Your task to perform on an android device: Open accessibility settings Image 0: 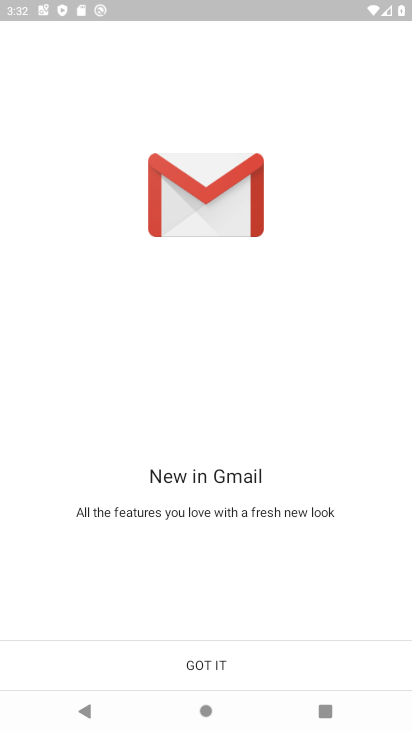
Step 0: click (200, 660)
Your task to perform on an android device: Open accessibility settings Image 1: 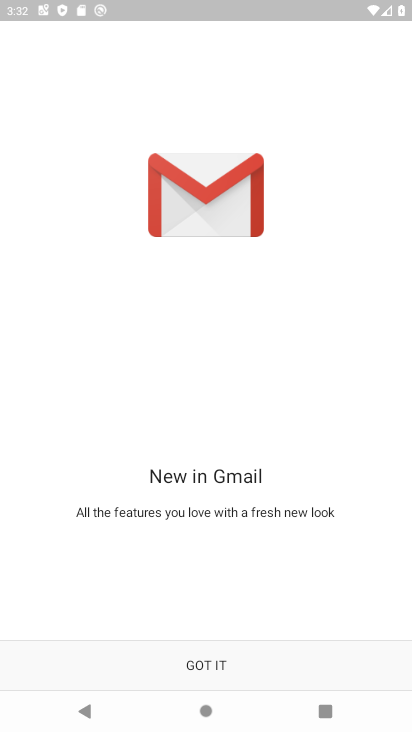
Step 1: click (203, 659)
Your task to perform on an android device: Open accessibility settings Image 2: 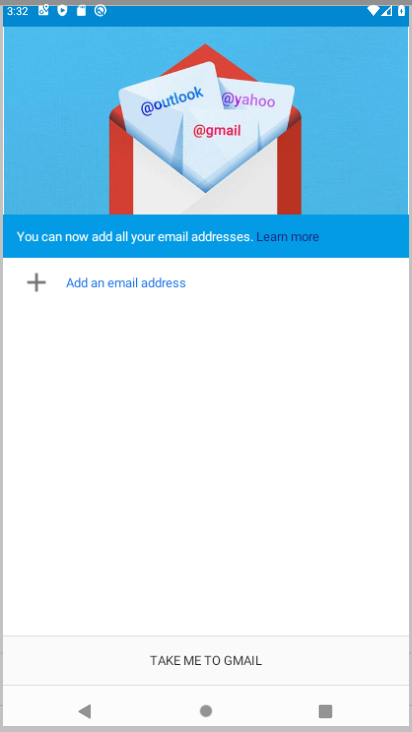
Step 2: click (205, 658)
Your task to perform on an android device: Open accessibility settings Image 3: 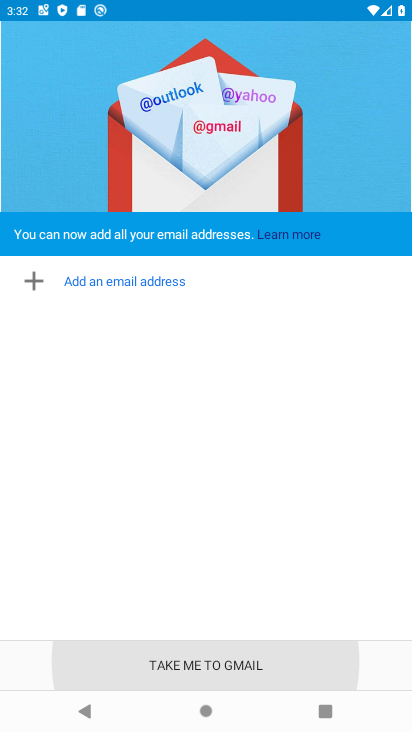
Step 3: click (208, 655)
Your task to perform on an android device: Open accessibility settings Image 4: 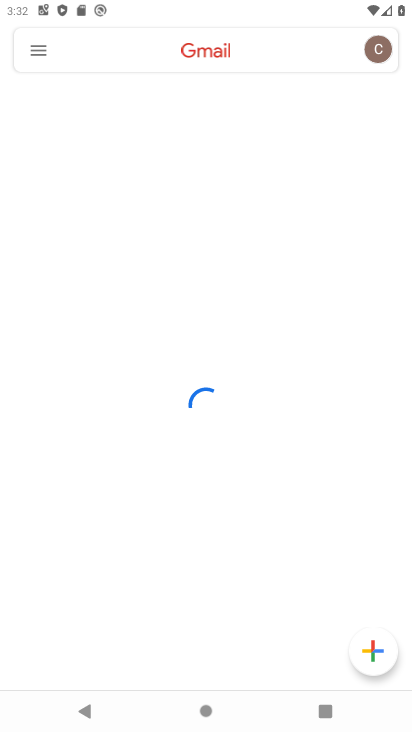
Step 4: press back button
Your task to perform on an android device: Open accessibility settings Image 5: 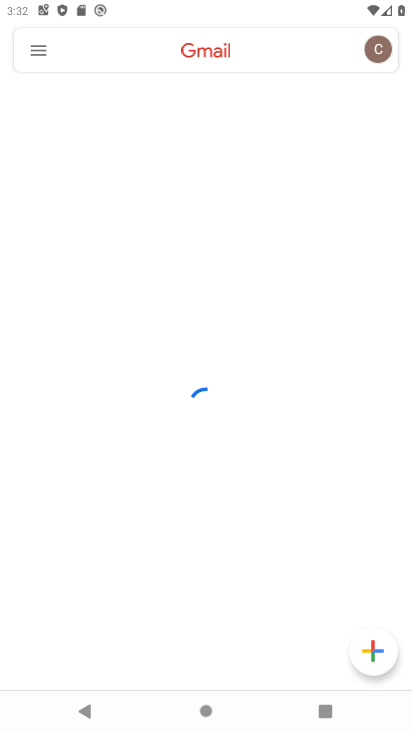
Step 5: press back button
Your task to perform on an android device: Open accessibility settings Image 6: 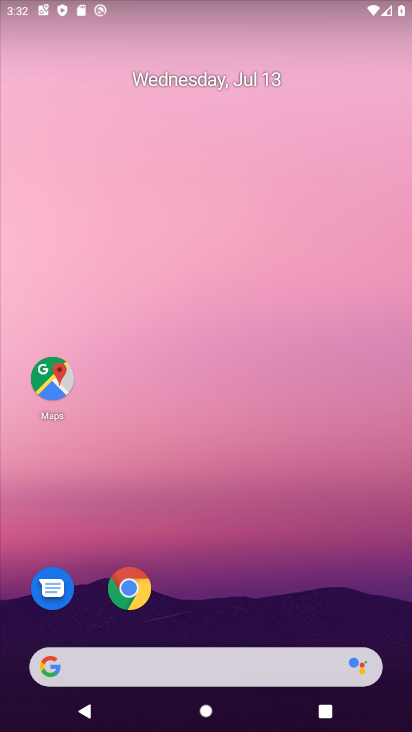
Step 6: drag from (259, 642) to (203, 231)
Your task to perform on an android device: Open accessibility settings Image 7: 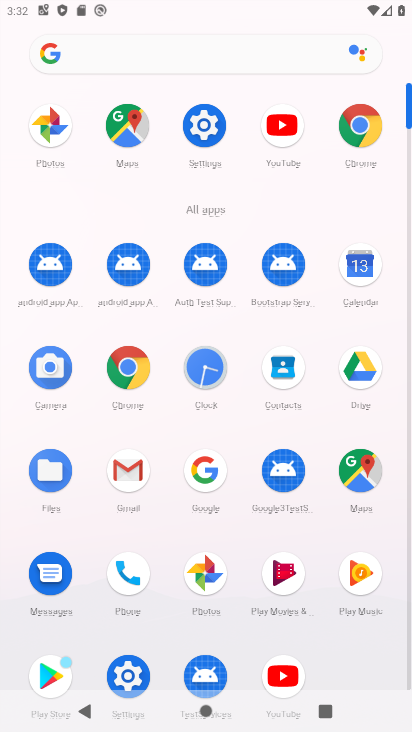
Step 7: click (206, 128)
Your task to perform on an android device: Open accessibility settings Image 8: 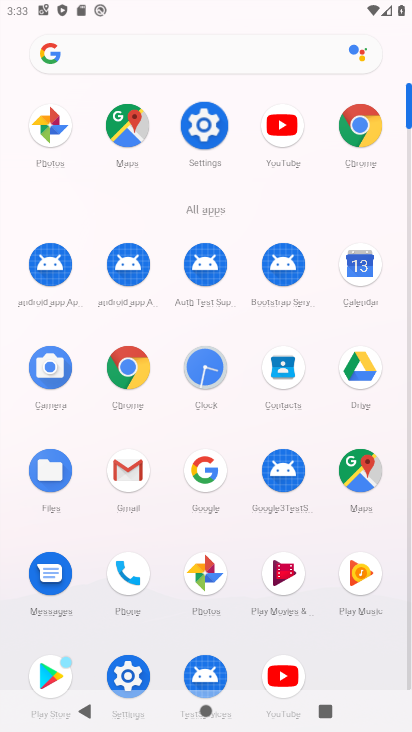
Step 8: click (207, 125)
Your task to perform on an android device: Open accessibility settings Image 9: 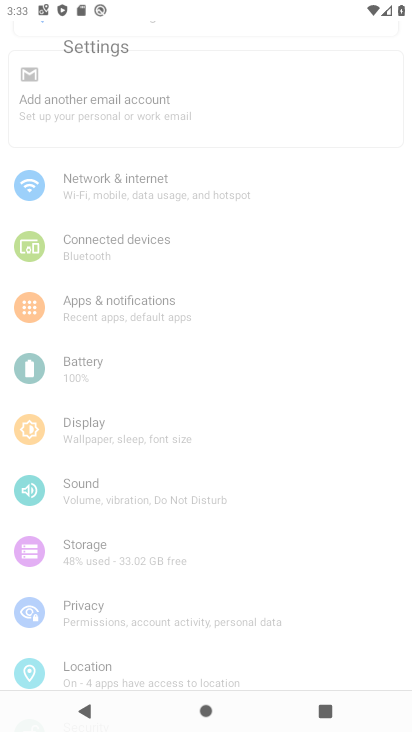
Step 9: click (210, 122)
Your task to perform on an android device: Open accessibility settings Image 10: 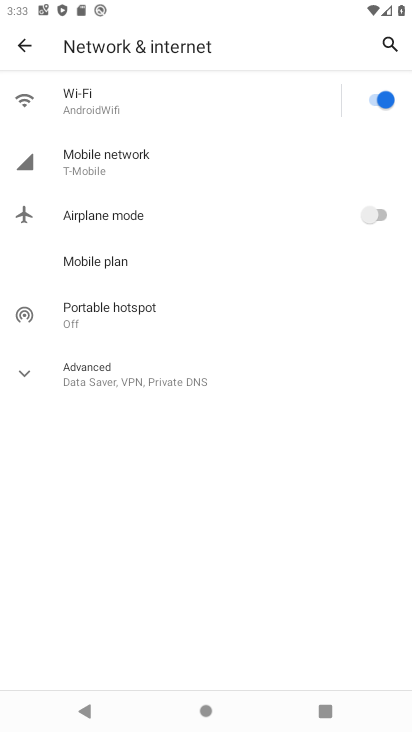
Step 10: click (12, 27)
Your task to perform on an android device: Open accessibility settings Image 11: 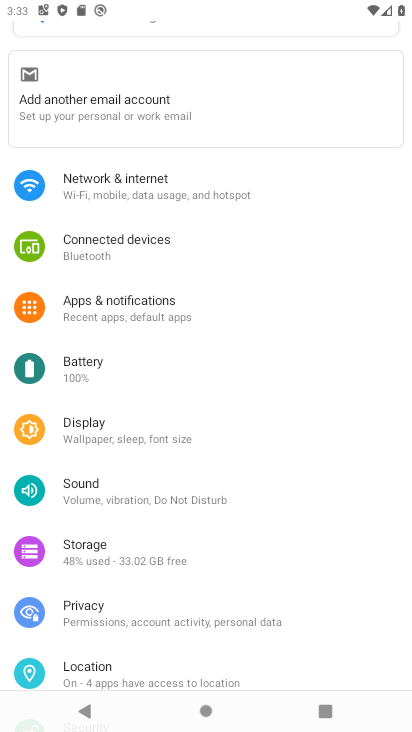
Step 11: drag from (118, 569) to (136, 185)
Your task to perform on an android device: Open accessibility settings Image 12: 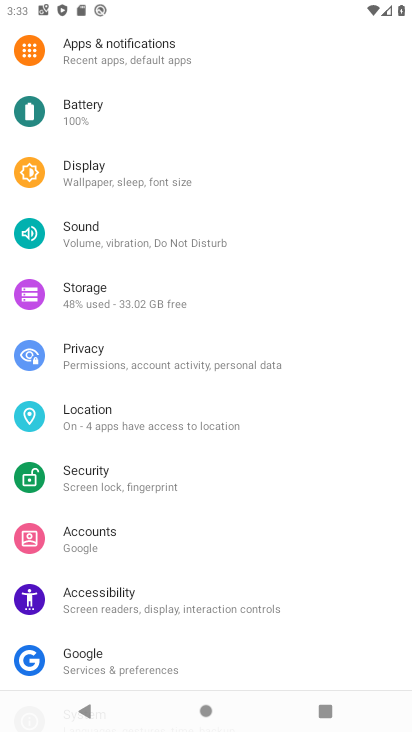
Step 12: click (89, 591)
Your task to perform on an android device: Open accessibility settings Image 13: 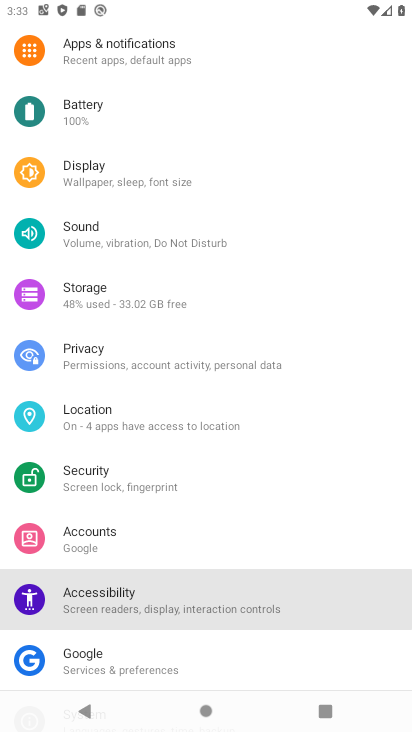
Step 13: click (89, 591)
Your task to perform on an android device: Open accessibility settings Image 14: 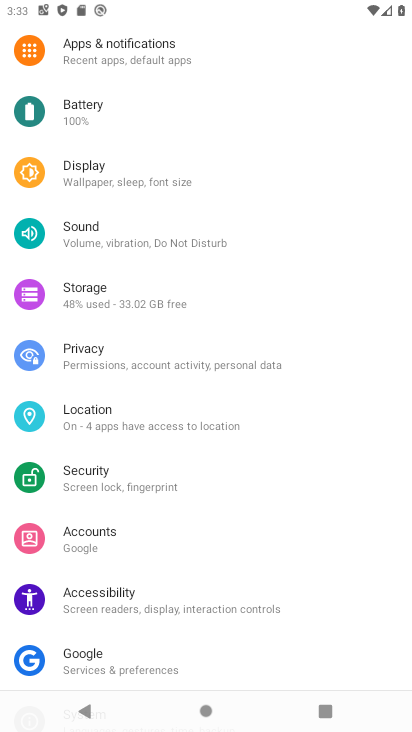
Step 14: click (94, 589)
Your task to perform on an android device: Open accessibility settings Image 15: 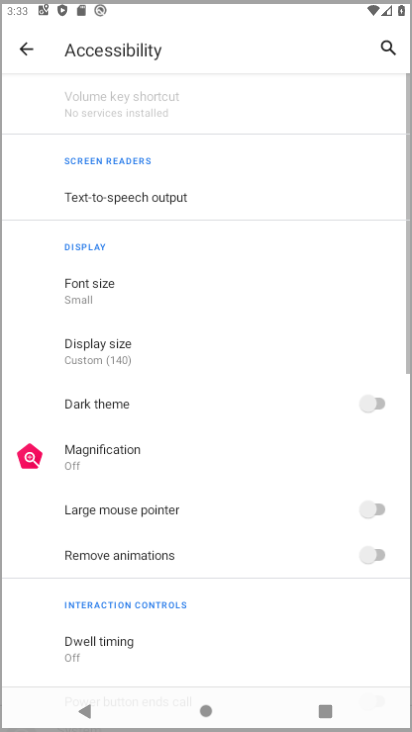
Step 15: click (96, 589)
Your task to perform on an android device: Open accessibility settings Image 16: 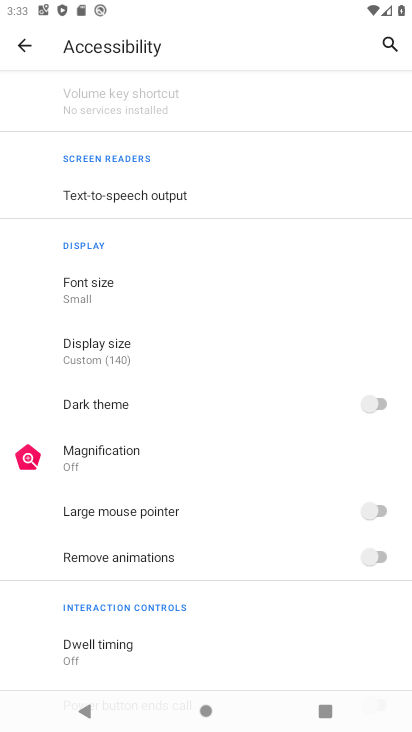
Step 16: task complete